Your task to perform on an android device: Add corsair k70 to the cart on ebay.com, then select checkout. Image 0: 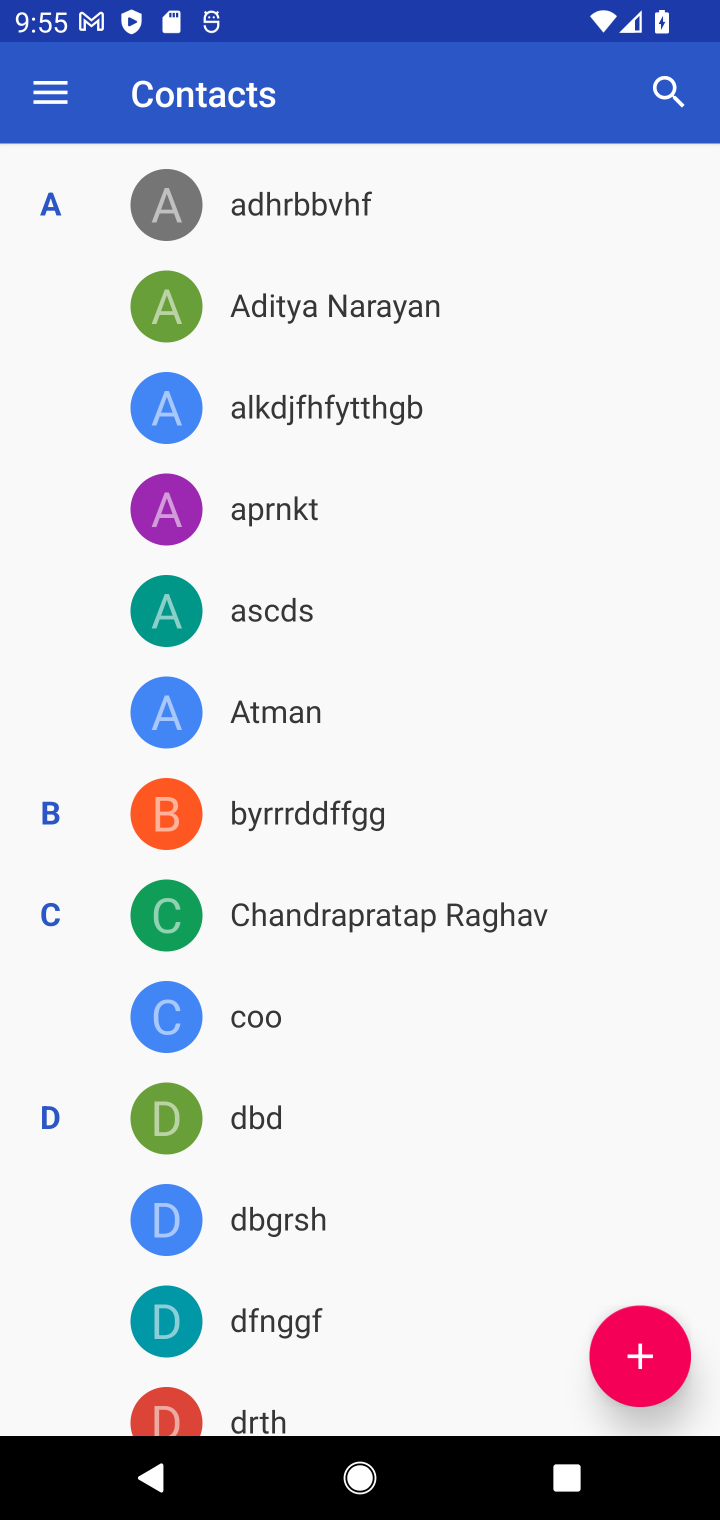
Step 0: press home button
Your task to perform on an android device: Add corsair k70 to the cart on ebay.com, then select checkout. Image 1: 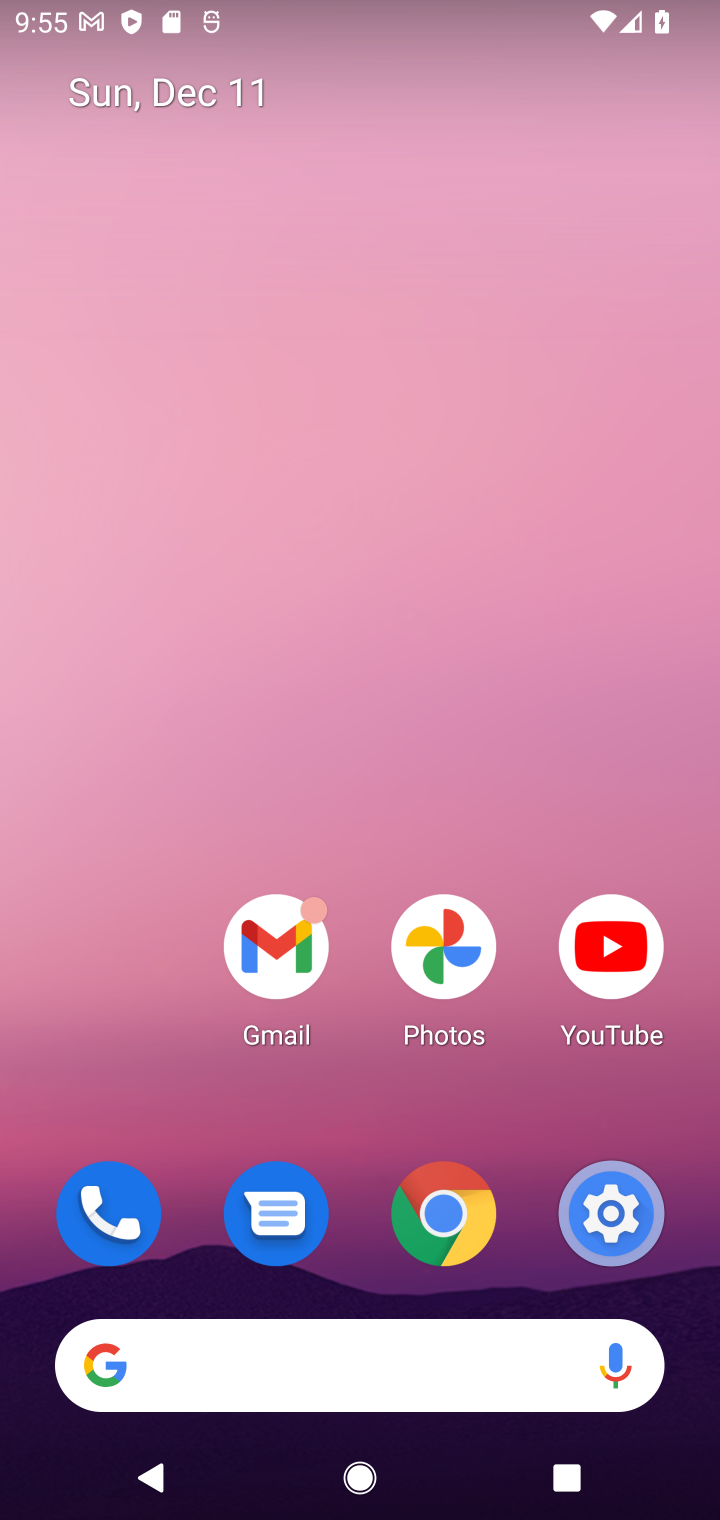
Step 1: click (320, 1413)
Your task to perform on an android device: Add corsair k70 to the cart on ebay.com, then select checkout. Image 2: 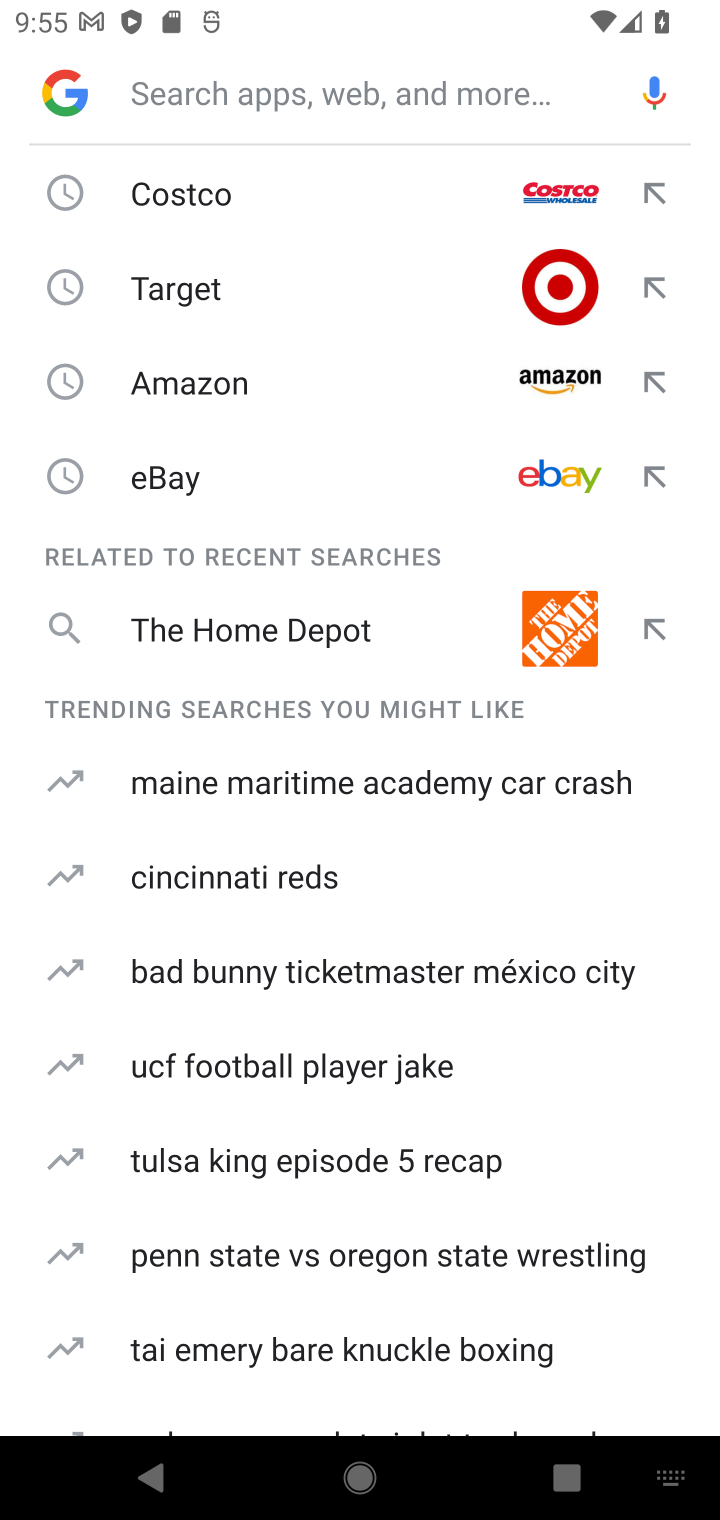
Step 2: type "ebay.com"
Your task to perform on an android device: Add corsair k70 to the cart on ebay.com, then select checkout. Image 3: 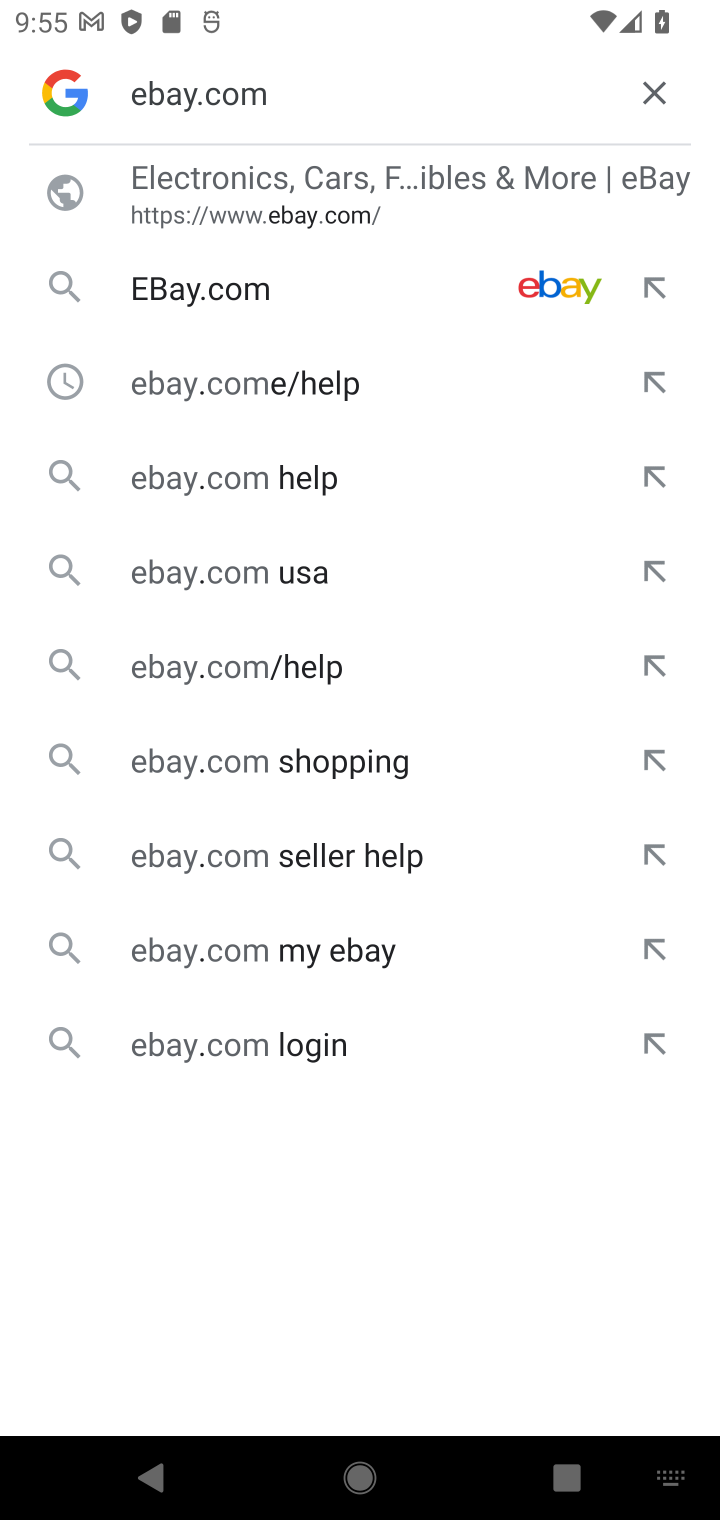
Step 3: click (237, 236)
Your task to perform on an android device: Add corsair k70 to the cart on ebay.com, then select checkout. Image 4: 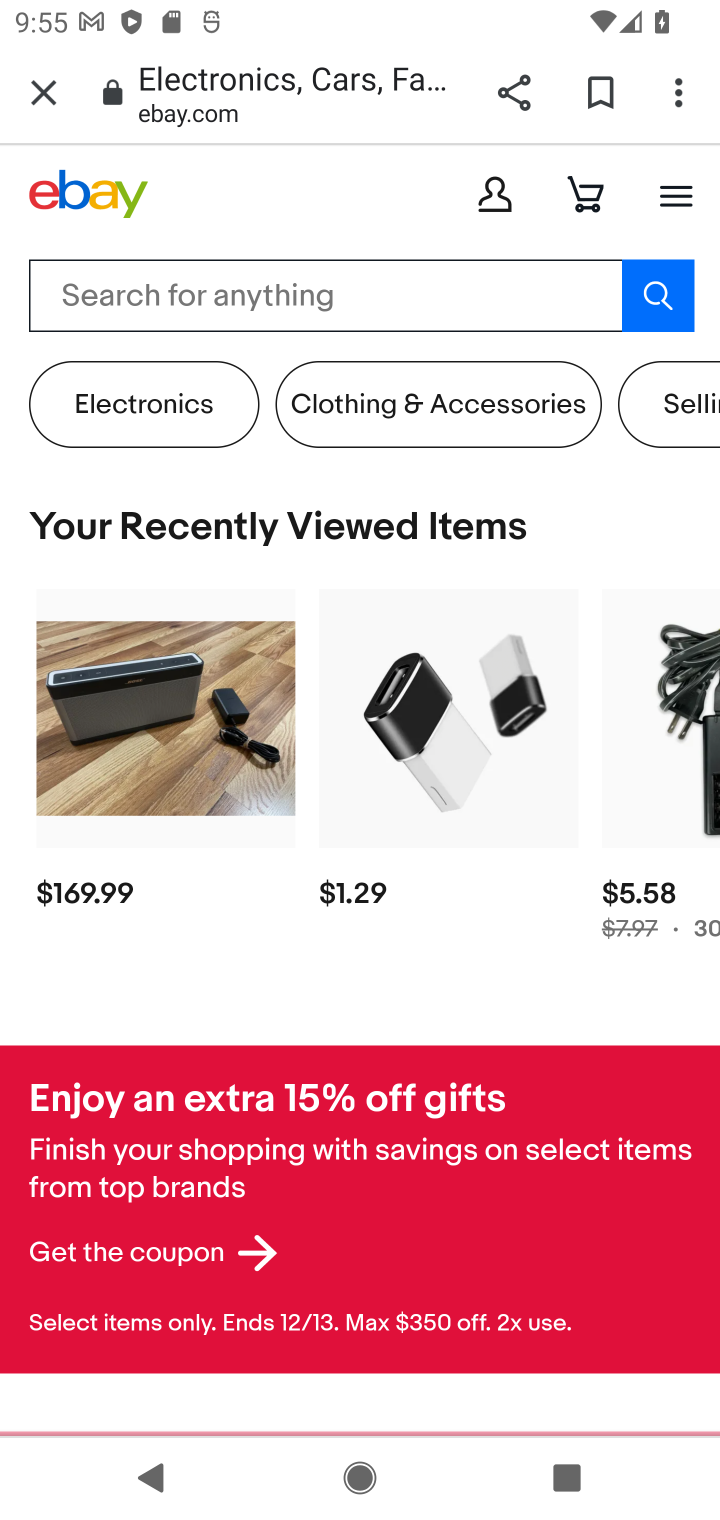
Step 4: click (201, 276)
Your task to perform on an android device: Add corsair k70 to the cart on ebay.com, then select checkout. Image 5: 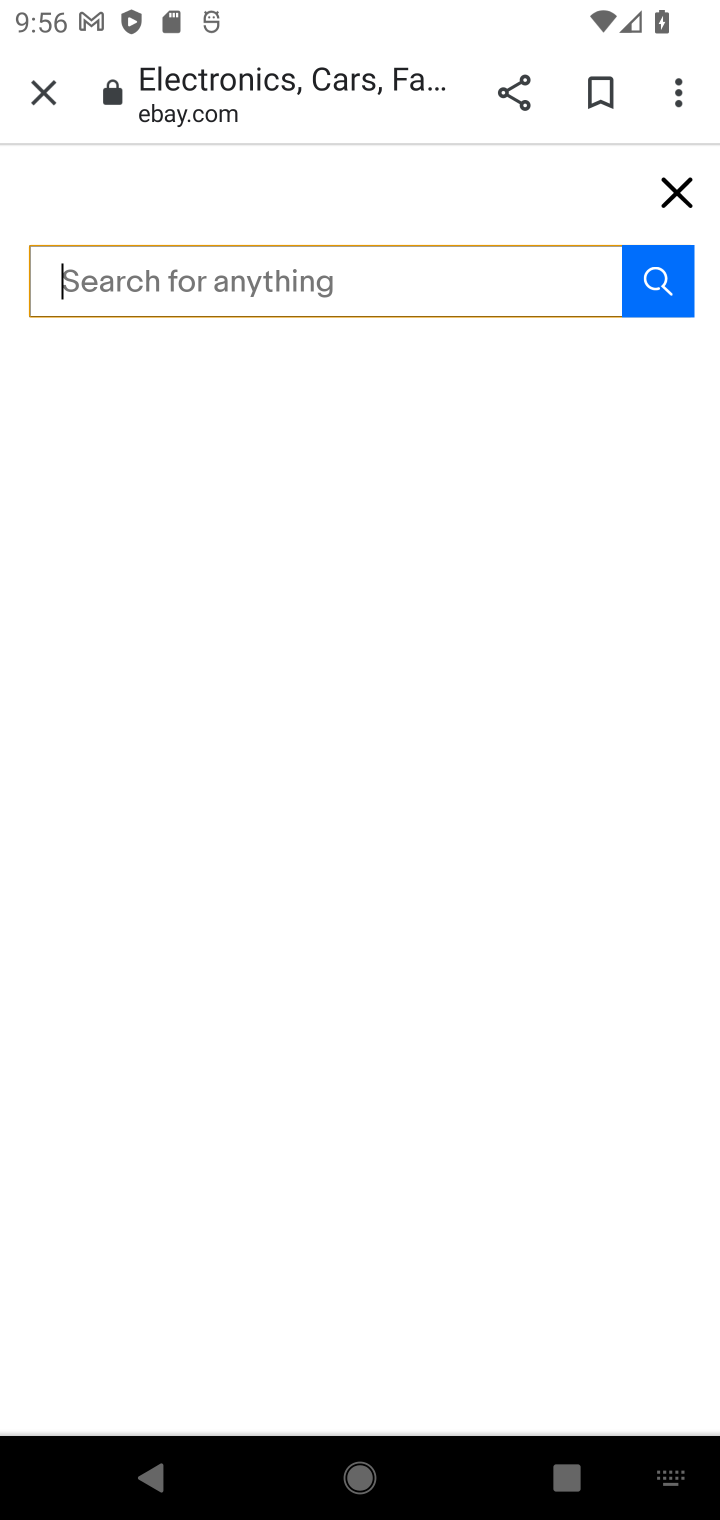
Step 5: type "corsair k70"
Your task to perform on an android device: Add corsair k70 to the cart on ebay.com, then select checkout. Image 6: 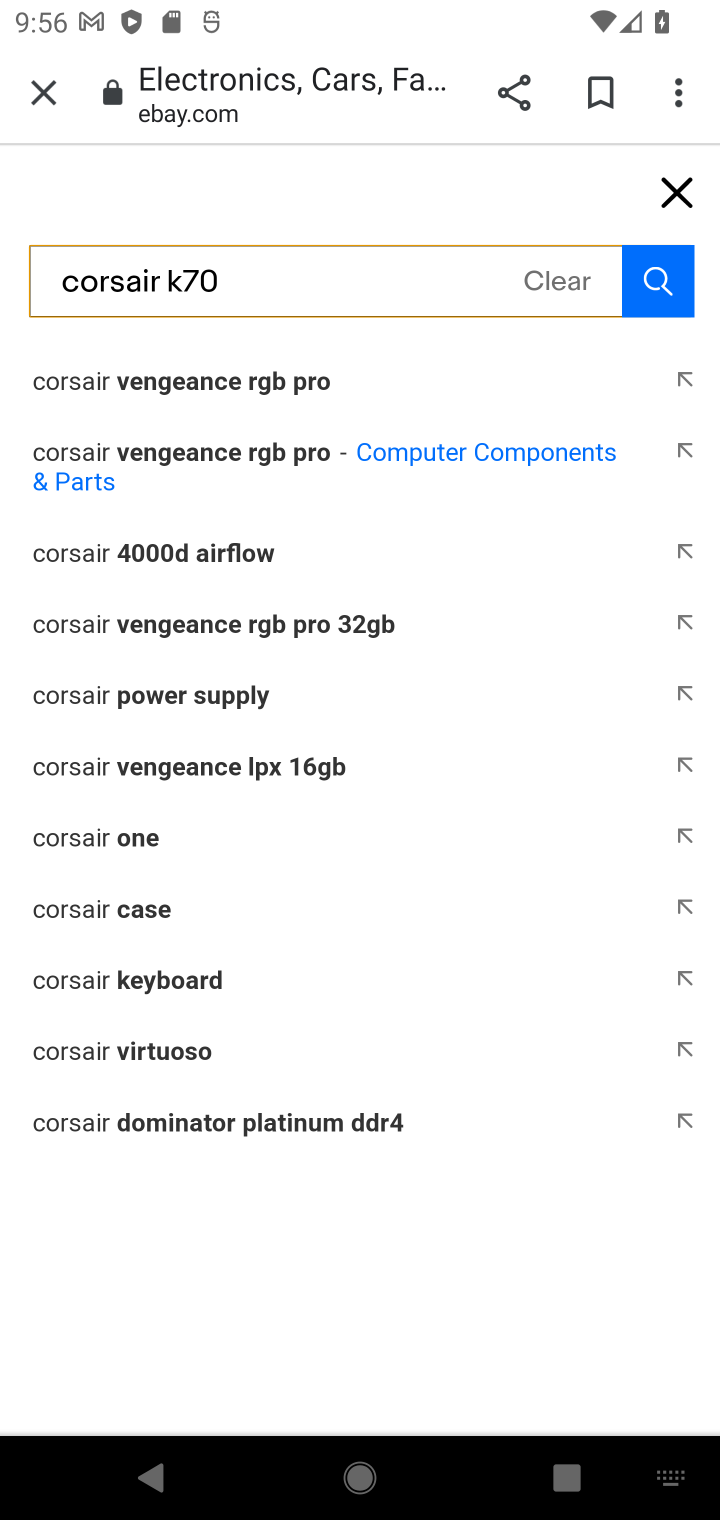
Step 6: click (639, 279)
Your task to perform on an android device: Add corsair k70 to the cart on ebay.com, then select checkout. Image 7: 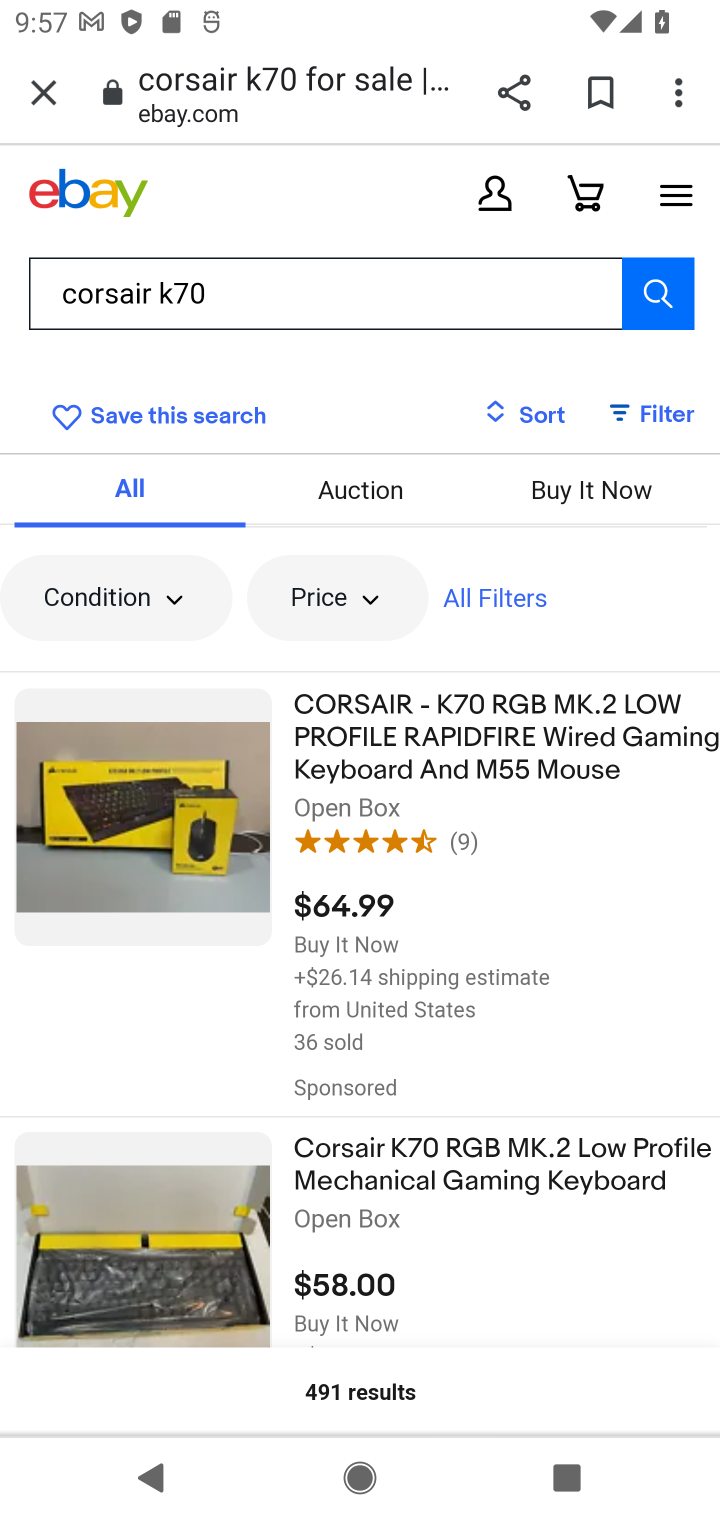
Step 7: click (356, 696)
Your task to perform on an android device: Add corsair k70 to the cart on ebay.com, then select checkout. Image 8: 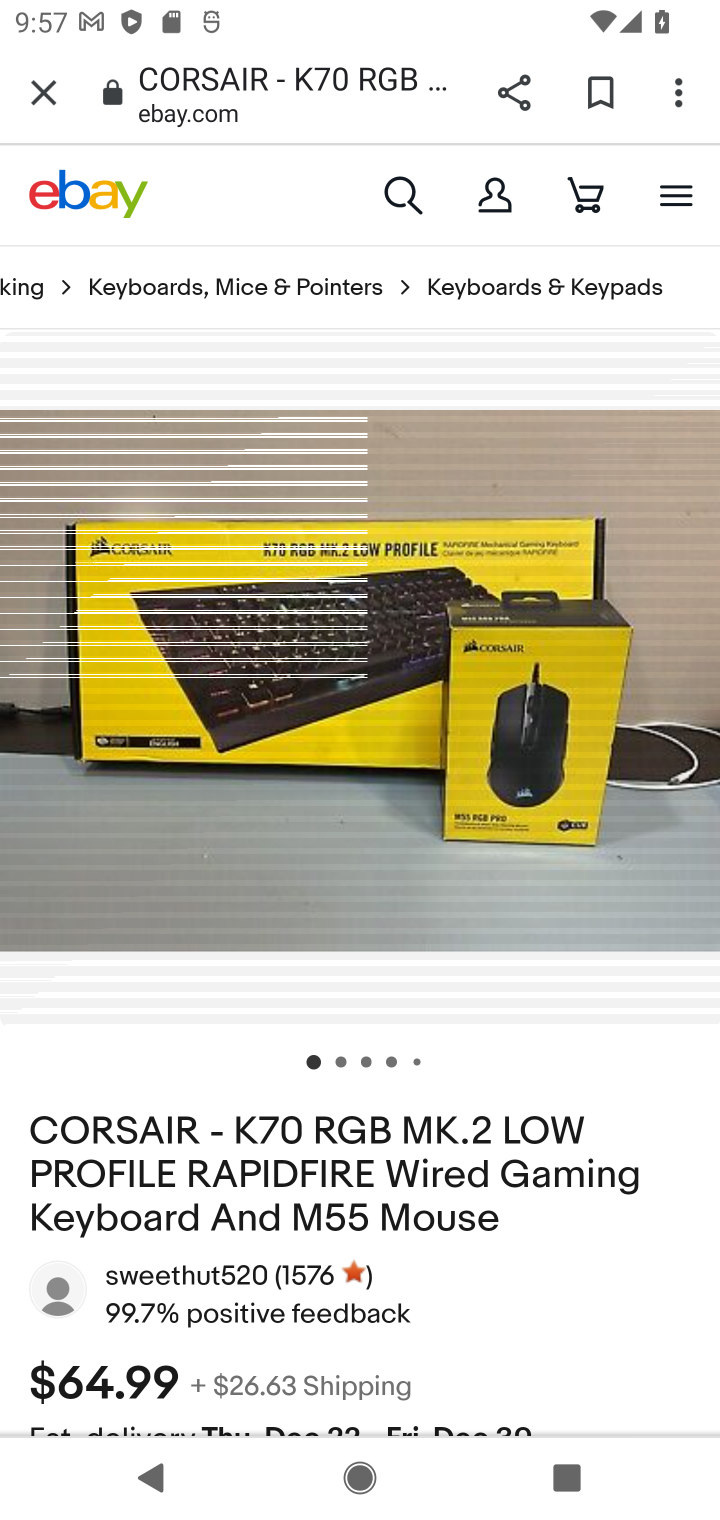
Step 8: drag from (339, 1365) to (363, 442)
Your task to perform on an android device: Add corsair k70 to the cart on ebay.com, then select checkout. Image 9: 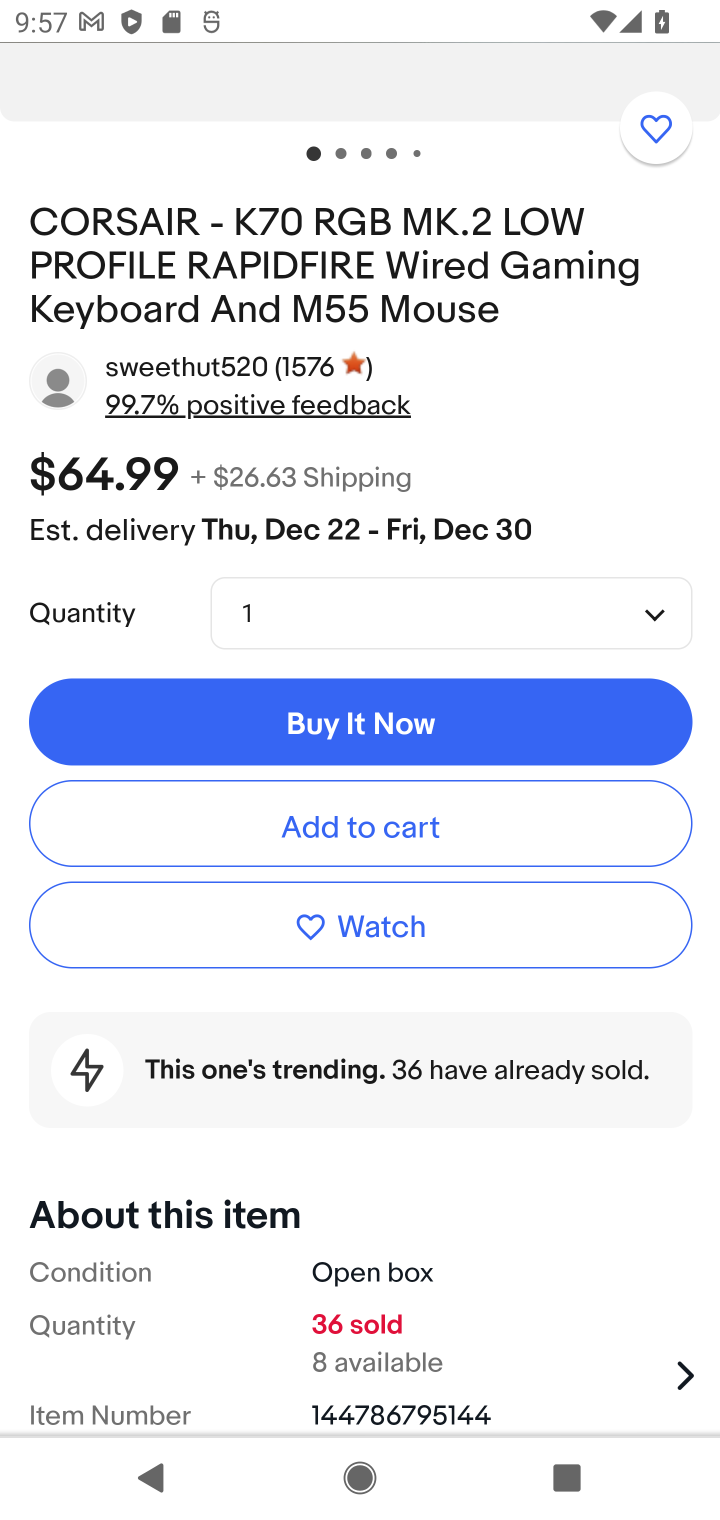
Step 9: click (426, 837)
Your task to perform on an android device: Add corsair k70 to the cart on ebay.com, then select checkout. Image 10: 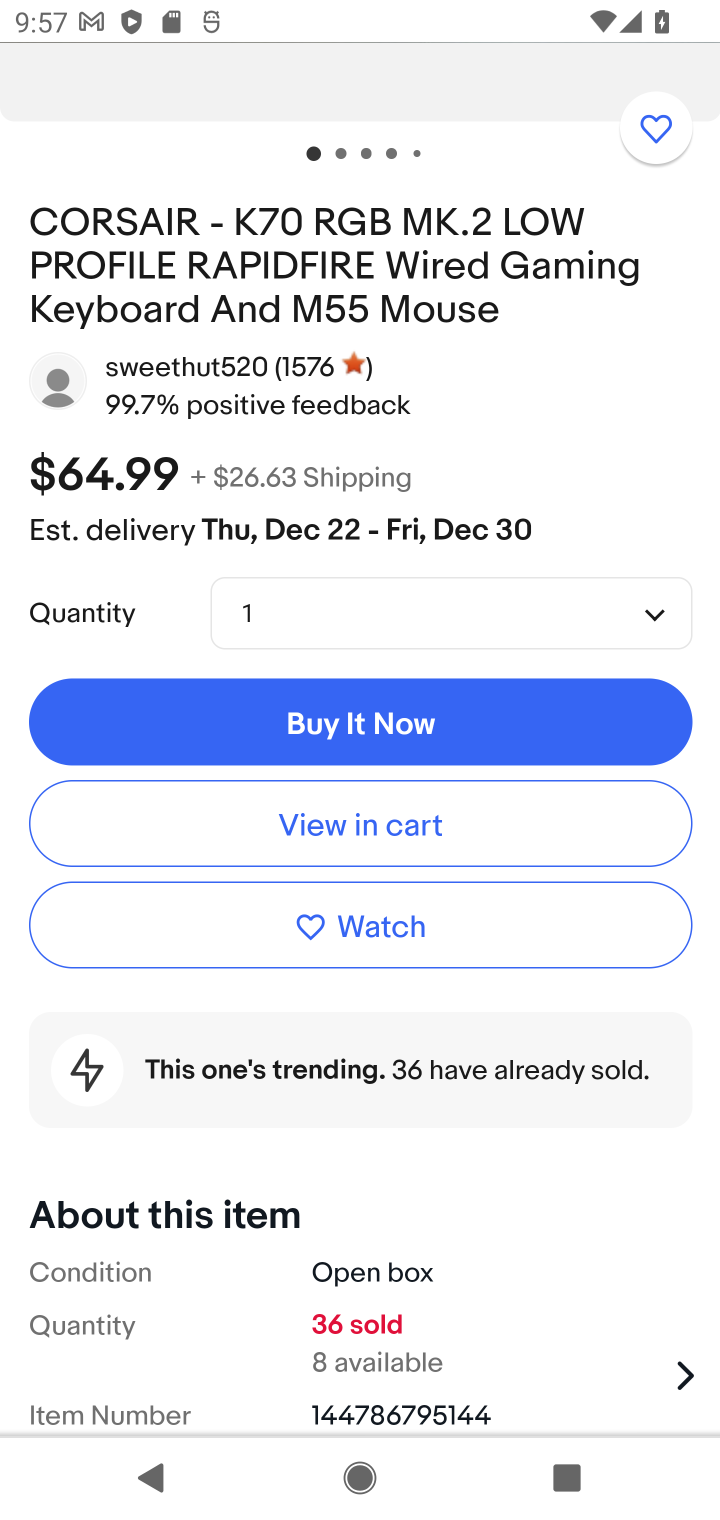
Step 10: click (378, 840)
Your task to perform on an android device: Add corsair k70 to the cart on ebay.com, then select checkout. Image 11: 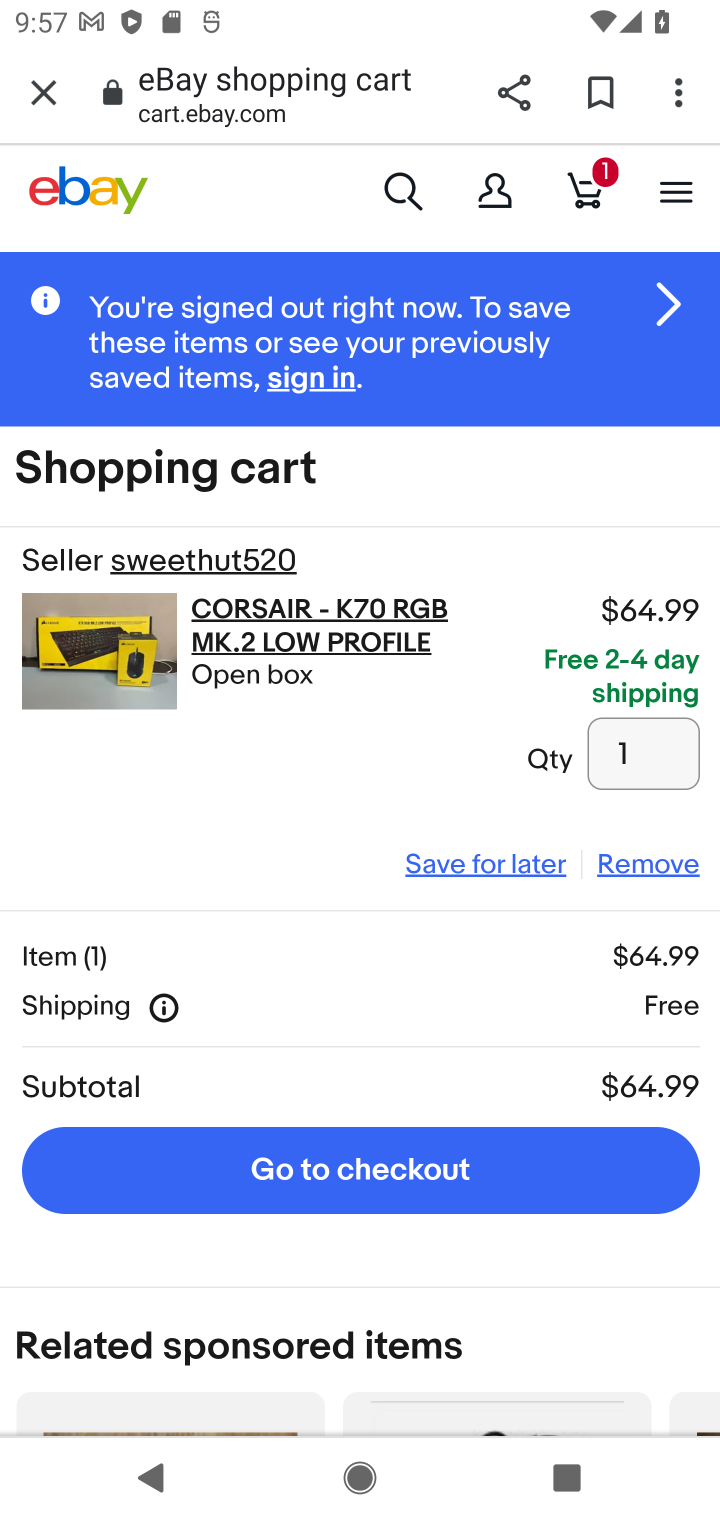
Step 11: task complete